Your task to perform on an android device: turn off javascript in the chrome app Image 0: 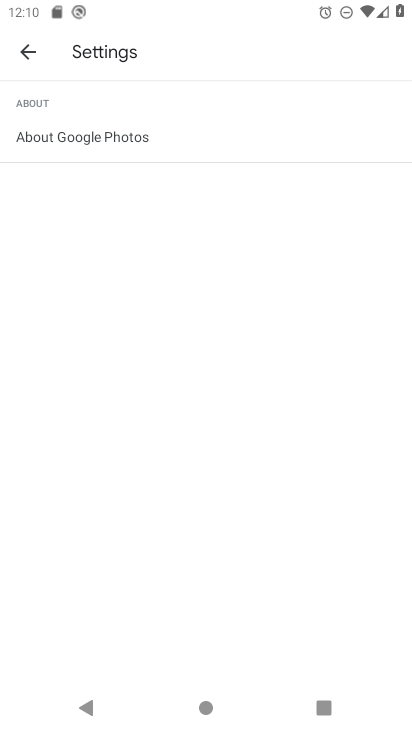
Step 0: press home button
Your task to perform on an android device: turn off javascript in the chrome app Image 1: 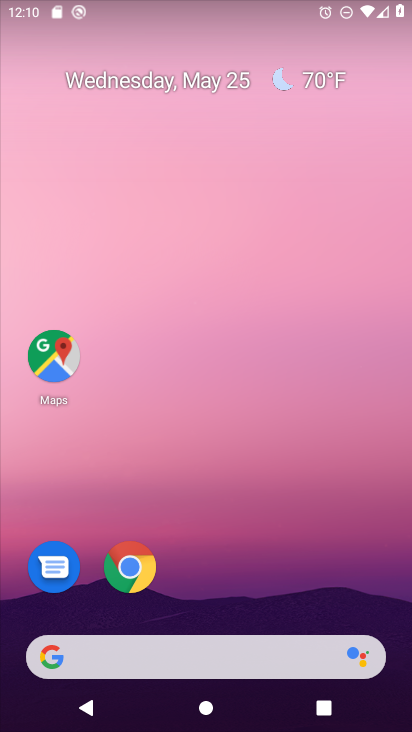
Step 1: click (135, 562)
Your task to perform on an android device: turn off javascript in the chrome app Image 2: 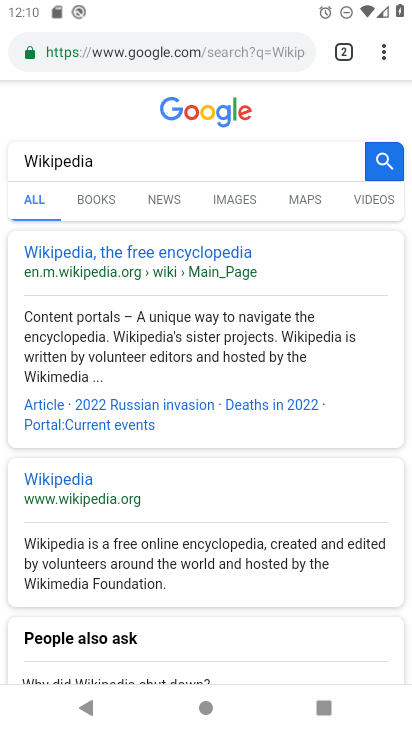
Step 2: click (376, 58)
Your task to perform on an android device: turn off javascript in the chrome app Image 3: 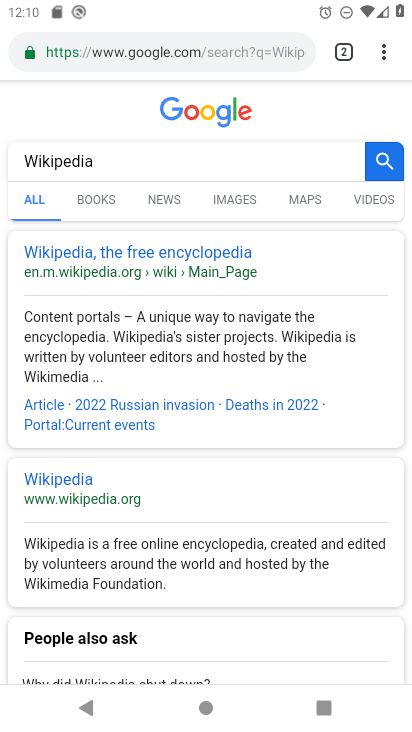
Step 3: click (382, 52)
Your task to perform on an android device: turn off javascript in the chrome app Image 4: 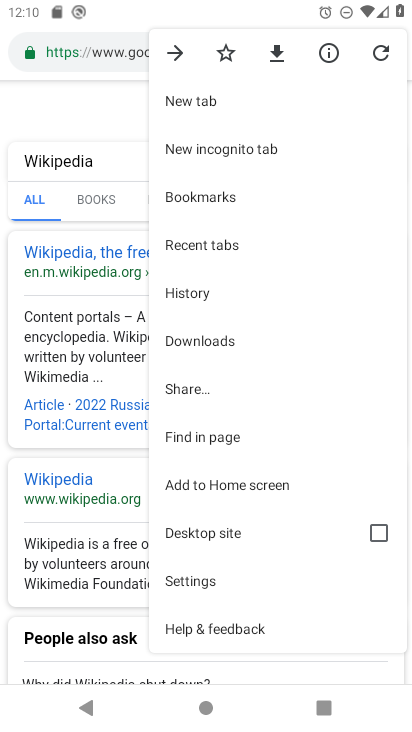
Step 4: click (194, 576)
Your task to perform on an android device: turn off javascript in the chrome app Image 5: 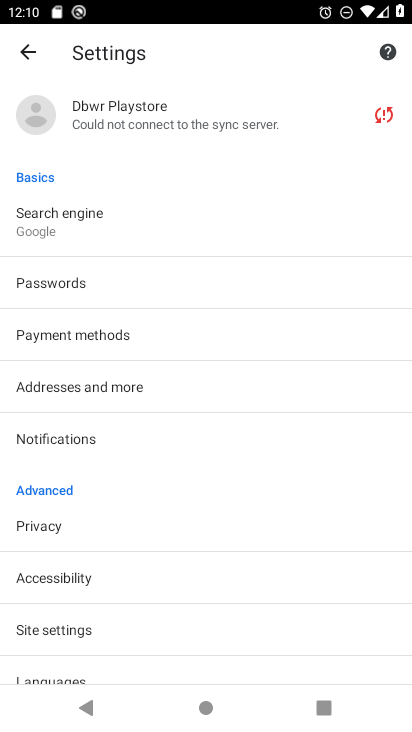
Step 5: click (54, 627)
Your task to perform on an android device: turn off javascript in the chrome app Image 6: 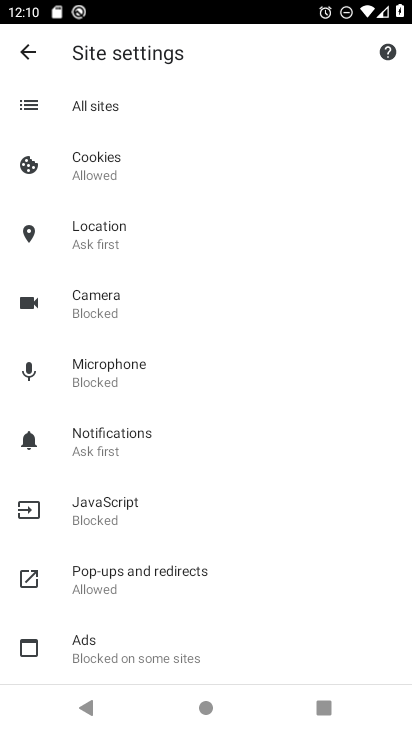
Step 6: click (99, 501)
Your task to perform on an android device: turn off javascript in the chrome app Image 7: 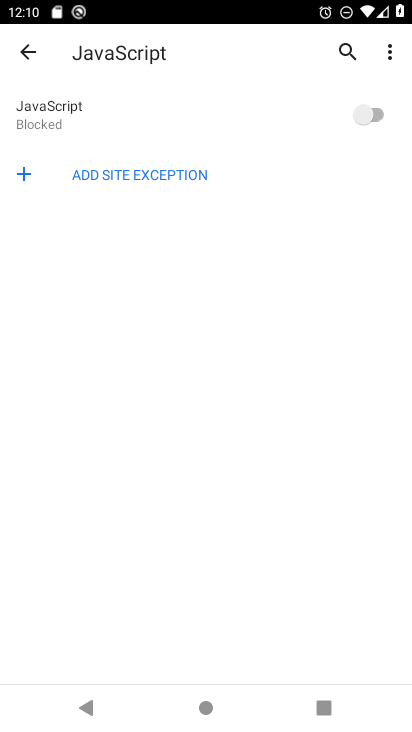
Step 7: task complete